Your task to perform on an android device: Go to Android settings Image 0: 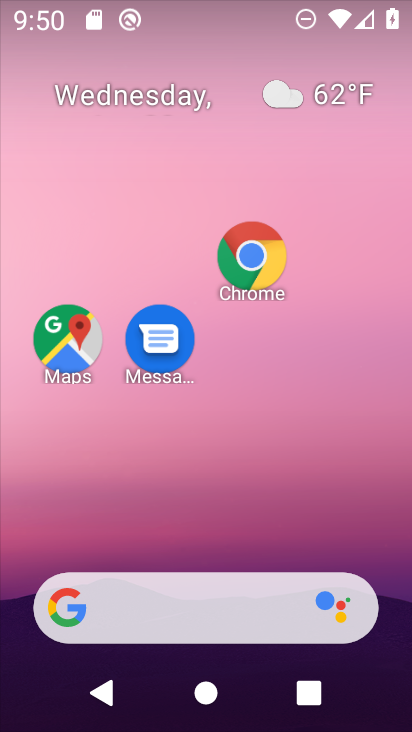
Step 0: drag from (225, 496) to (212, 56)
Your task to perform on an android device: Go to Android settings Image 1: 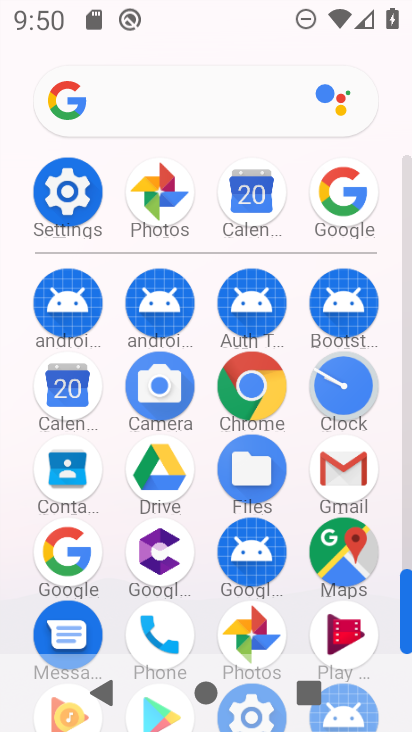
Step 1: click (67, 191)
Your task to perform on an android device: Go to Android settings Image 2: 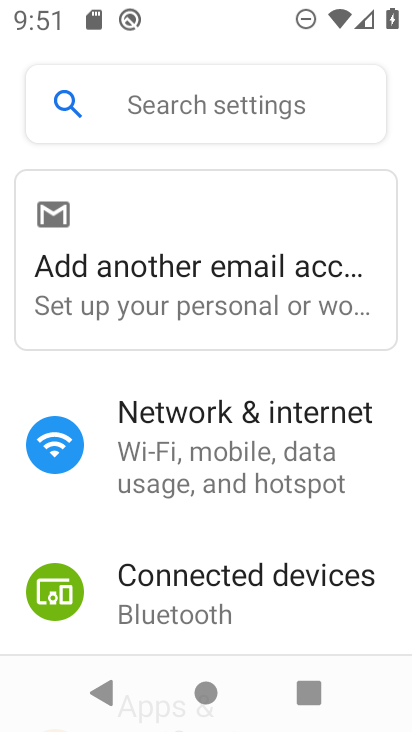
Step 2: task complete